Your task to perform on an android device: Go to network settings Image 0: 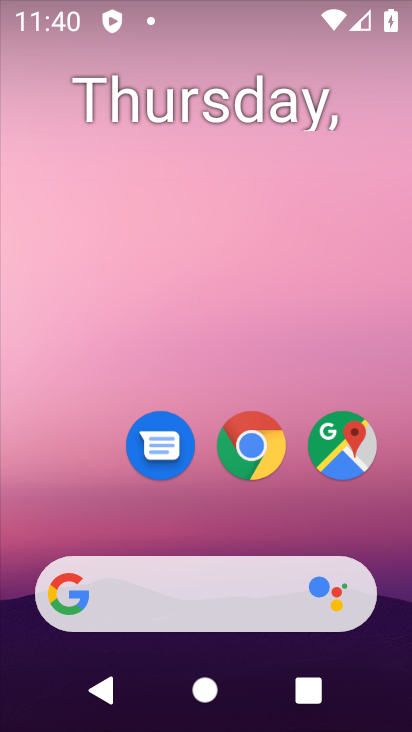
Step 0: click (255, 386)
Your task to perform on an android device: Go to network settings Image 1: 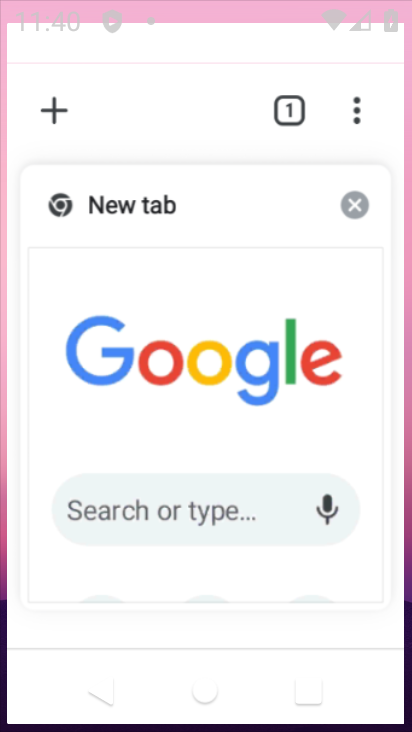
Step 1: drag from (201, 605) to (91, 119)
Your task to perform on an android device: Go to network settings Image 2: 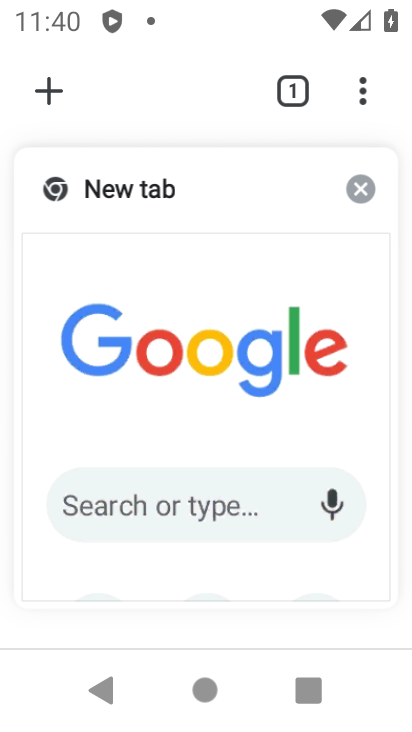
Step 2: press back button
Your task to perform on an android device: Go to network settings Image 3: 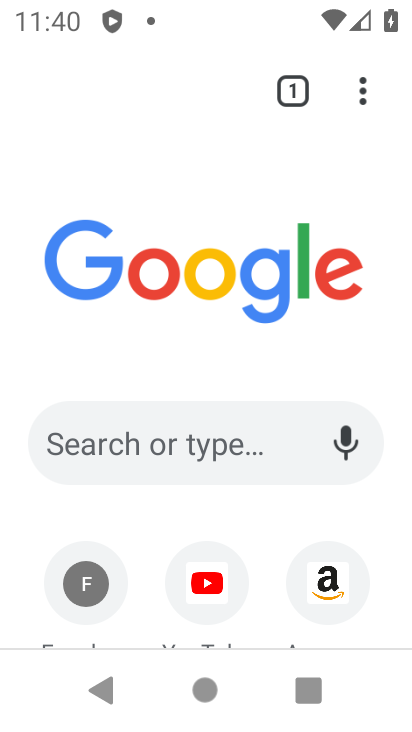
Step 3: press home button
Your task to perform on an android device: Go to network settings Image 4: 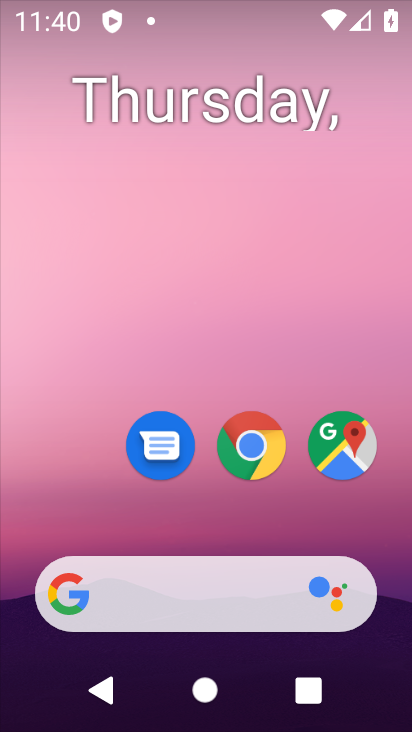
Step 4: drag from (324, 552) to (176, 47)
Your task to perform on an android device: Go to network settings Image 5: 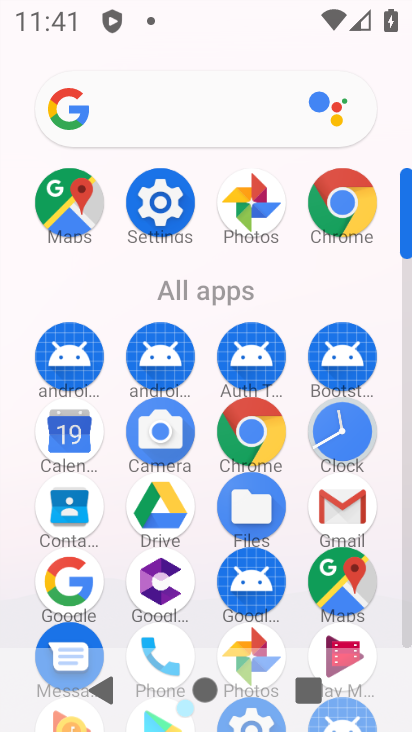
Step 5: click (141, 193)
Your task to perform on an android device: Go to network settings Image 6: 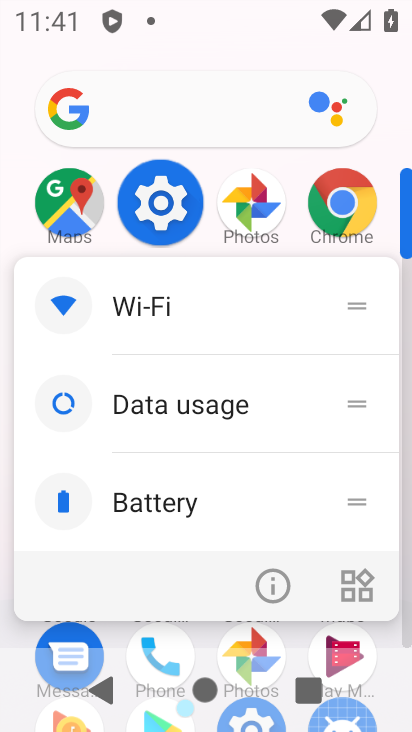
Step 6: click (141, 192)
Your task to perform on an android device: Go to network settings Image 7: 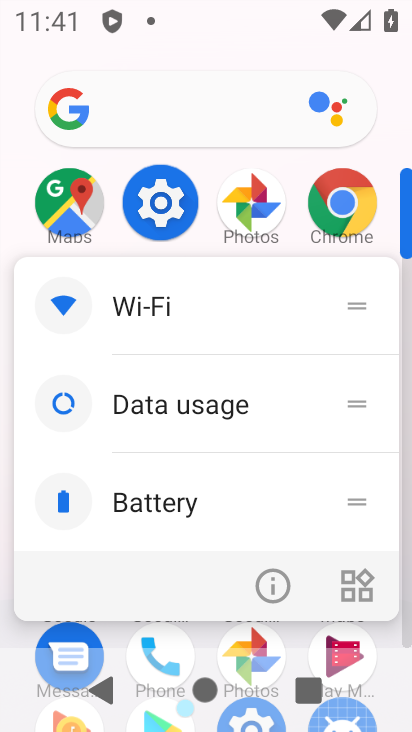
Step 7: click (141, 192)
Your task to perform on an android device: Go to network settings Image 8: 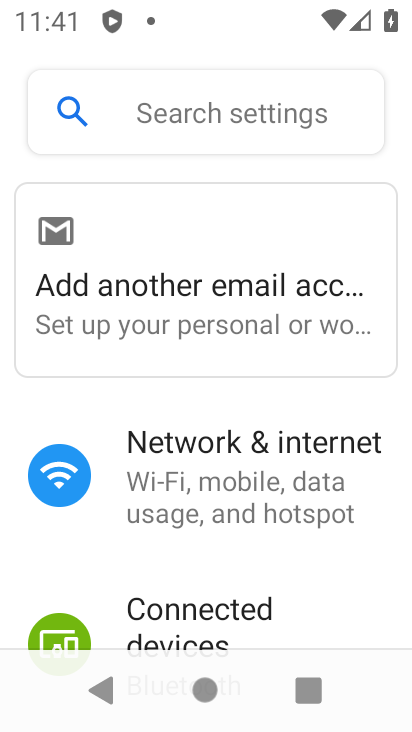
Step 8: click (203, 496)
Your task to perform on an android device: Go to network settings Image 9: 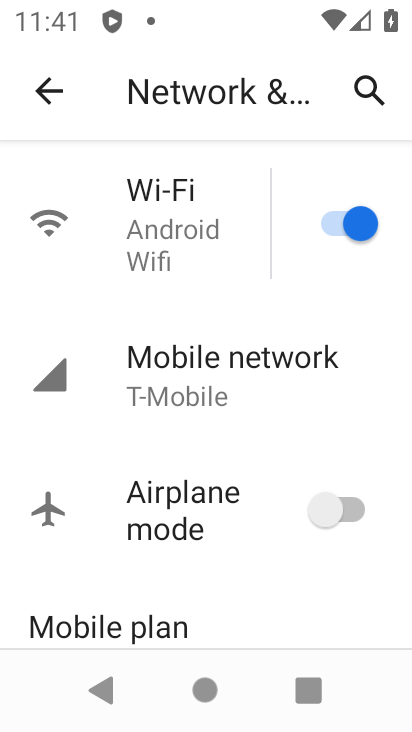
Step 9: click (194, 380)
Your task to perform on an android device: Go to network settings Image 10: 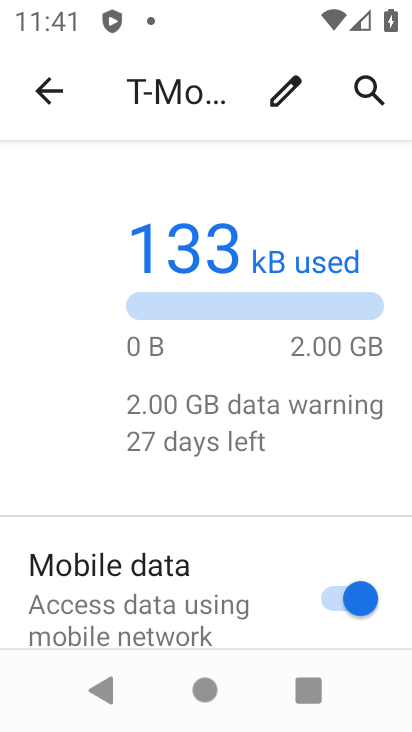
Step 10: task complete